Your task to perform on an android device: Open the phone app and click the voicemail tab. Image 0: 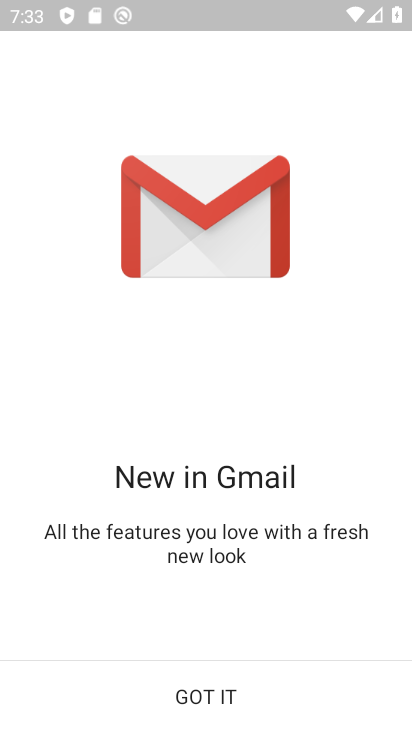
Step 0: press home button
Your task to perform on an android device: Open the phone app and click the voicemail tab. Image 1: 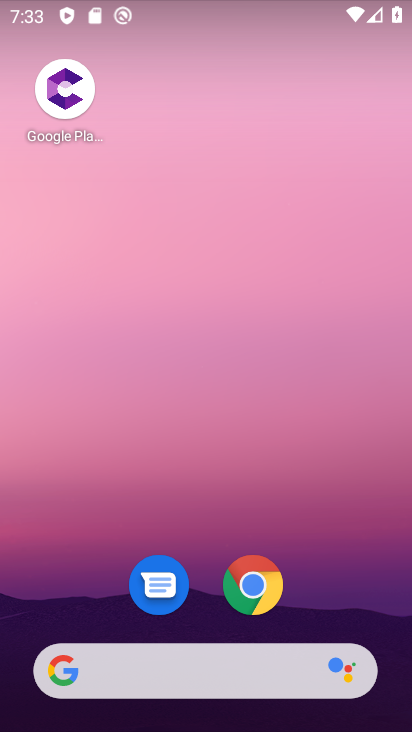
Step 1: drag from (282, 503) to (286, 70)
Your task to perform on an android device: Open the phone app and click the voicemail tab. Image 2: 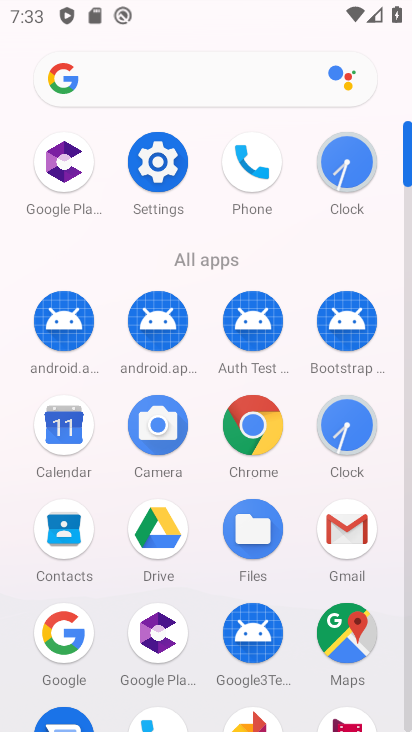
Step 2: click (251, 159)
Your task to perform on an android device: Open the phone app and click the voicemail tab. Image 3: 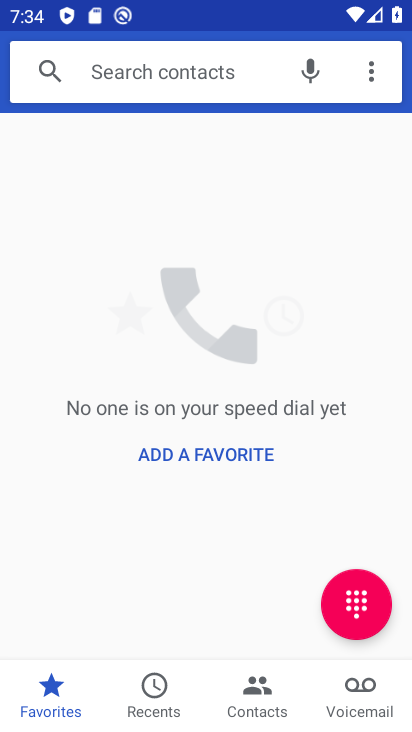
Step 3: click (360, 698)
Your task to perform on an android device: Open the phone app and click the voicemail tab. Image 4: 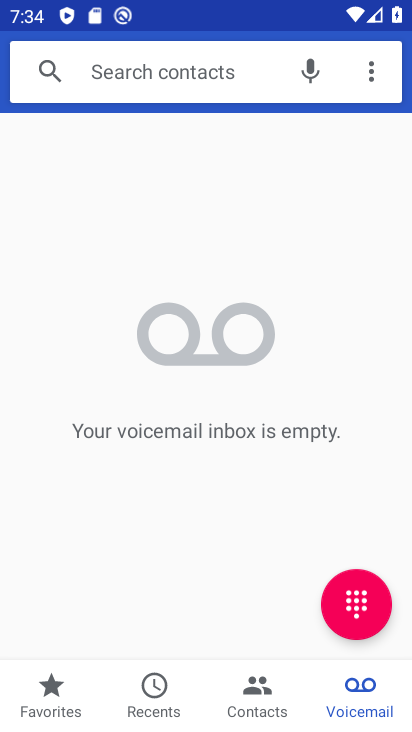
Step 4: task complete